Your task to perform on an android device: Add "beats solo 3" to the cart on newegg Image 0: 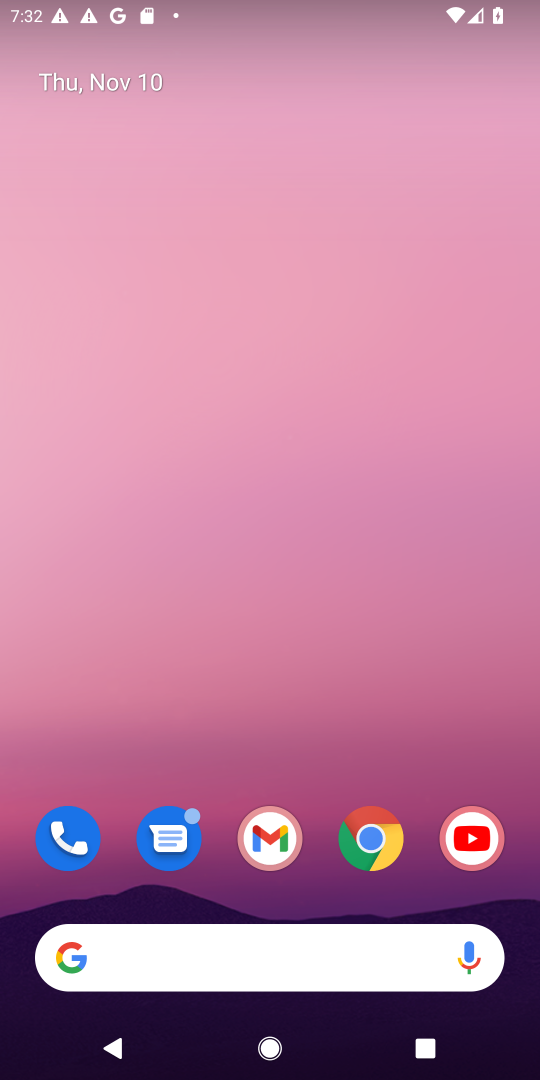
Step 0: drag from (313, 843) to (328, 5)
Your task to perform on an android device: Add "beats solo 3" to the cart on newegg Image 1: 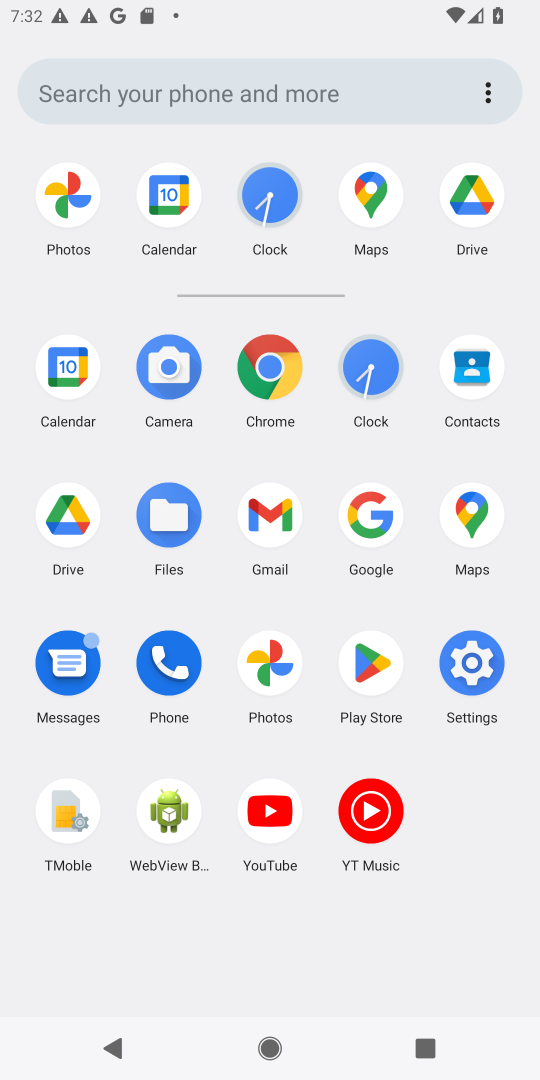
Step 1: click (271, 369)
Your task to perform on an android device: Add "beats solo 3" to the cart on newegg Image 2: 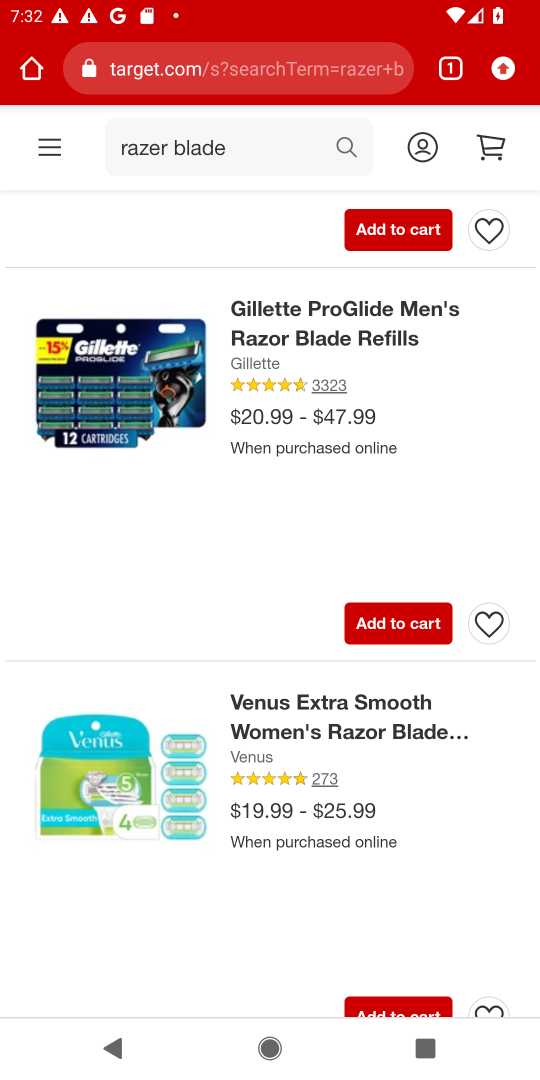
Step 2: click (240, 70)
Your task to perform on an android device: Add "beats solo 3" to the cart on newegg Image 3: 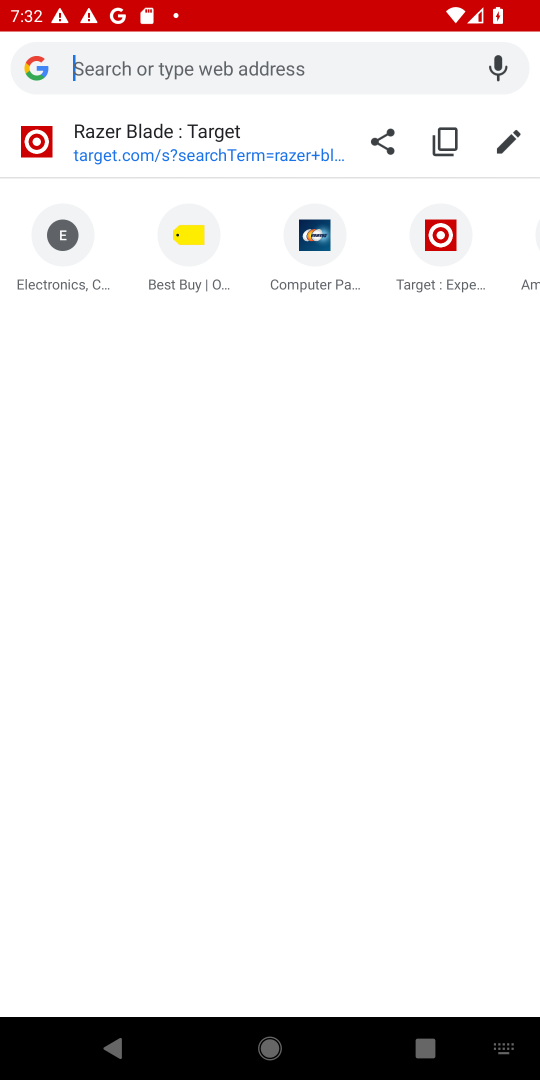
Step 3: type "newegg.com"
Your task to perform on an android device: Add "beats solo 3" to the cart on newegg Image 4: 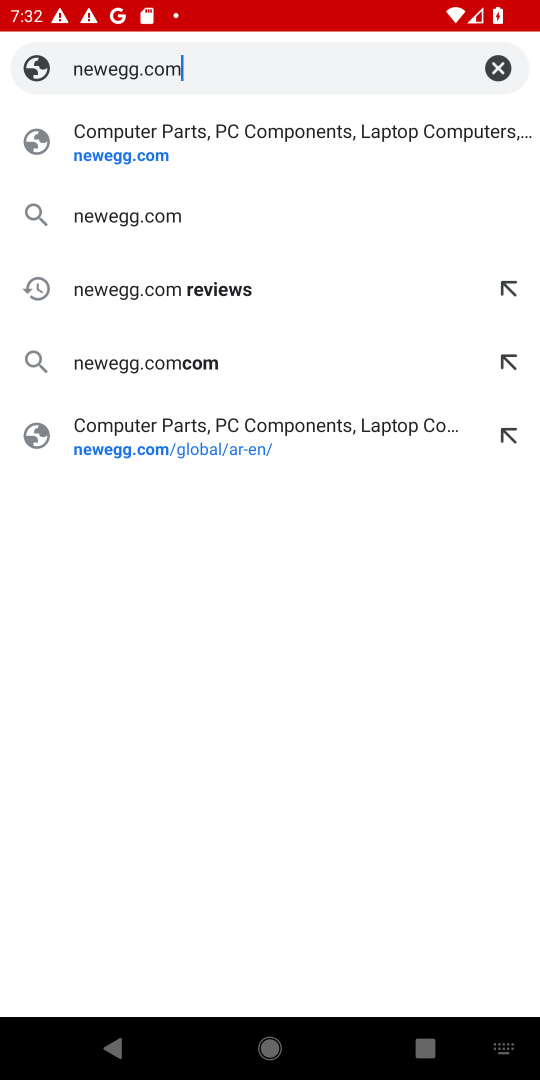
Step 4: press enter
Your task to perform on an android device: Add "beats solo 3" to the cart on newegg Image 5: 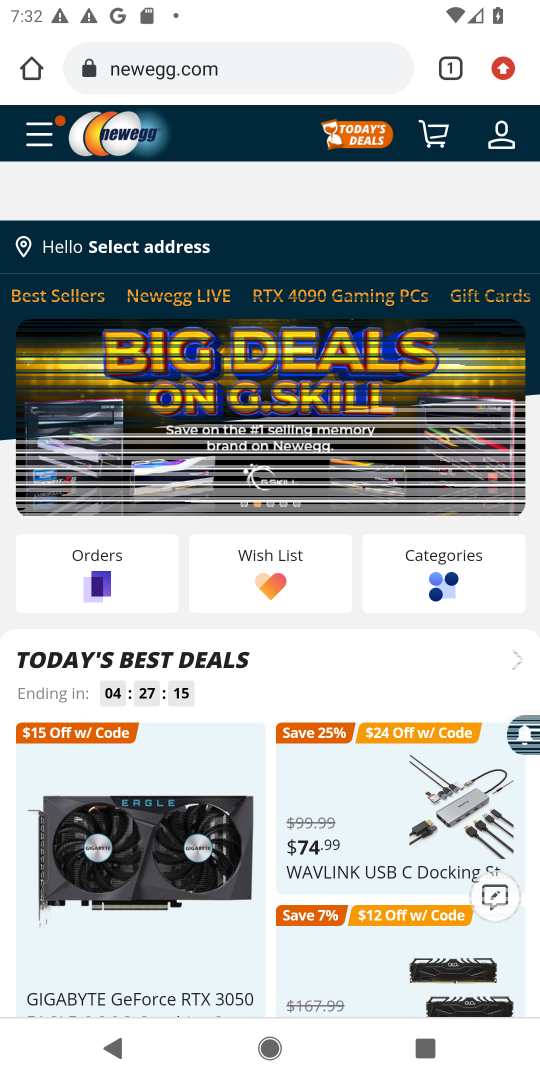
Step 5: click (361, 200)
Your task to perform on an android device: Add "beats solo 3" to the cart on newegg Image 6: 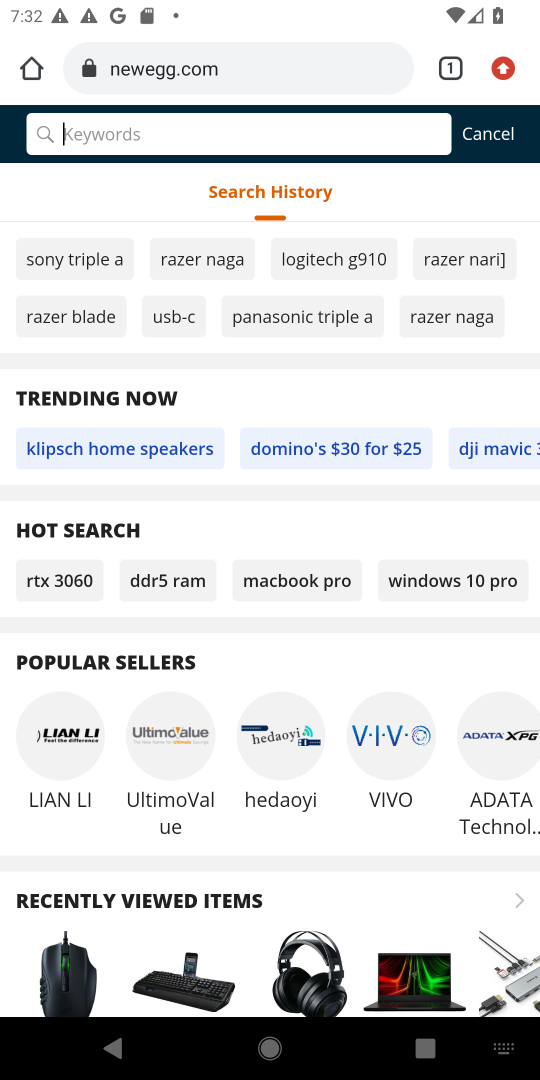
Step 6: type "beats solo 3"
Your task to perform on an android device: Add "beats solo 3" to the cart on newegg Image 7: 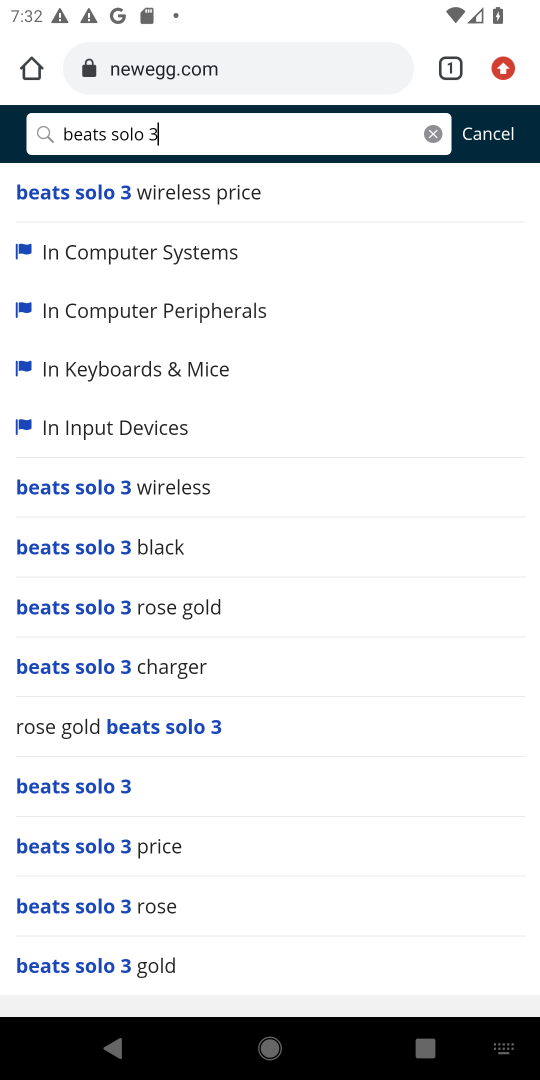
Step 7: press enter
Your task to perform on an android device: Add "beats solo 3" to the cart on newegg Image 8: 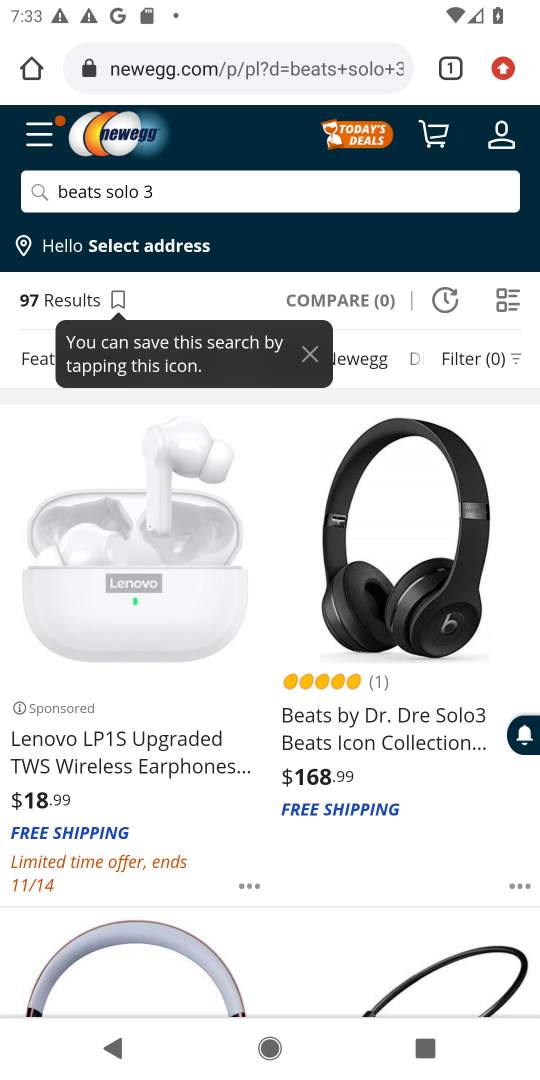
Step 8: click (372, 722)
Your task to perform on an android device: Add "beats solo 3" to the cart on newegg Image 9: 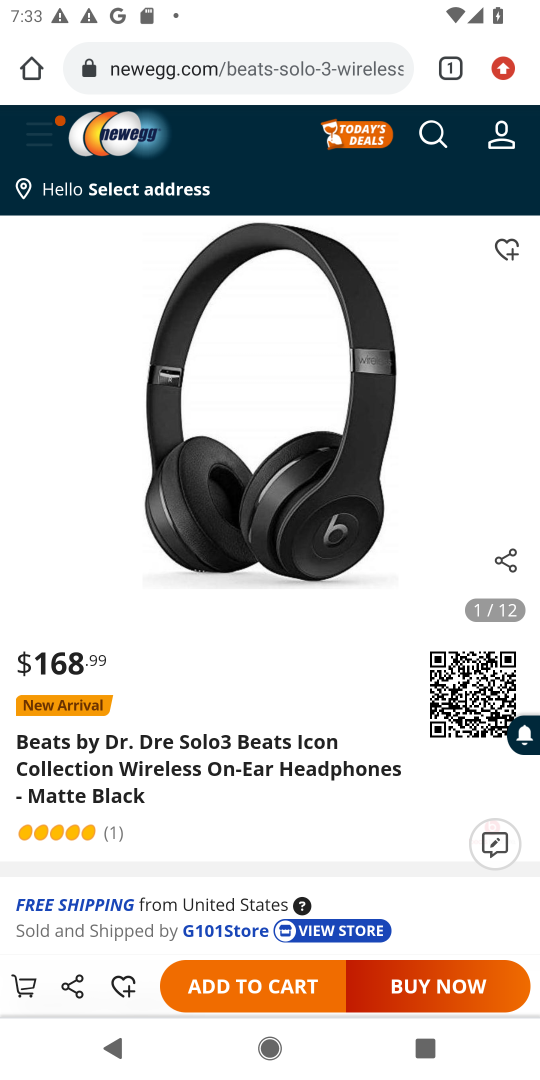
Step 9: click (293, 986)
Your task to perform on an android device: Add "beats solo 3" to the cart on newegg Image 10: 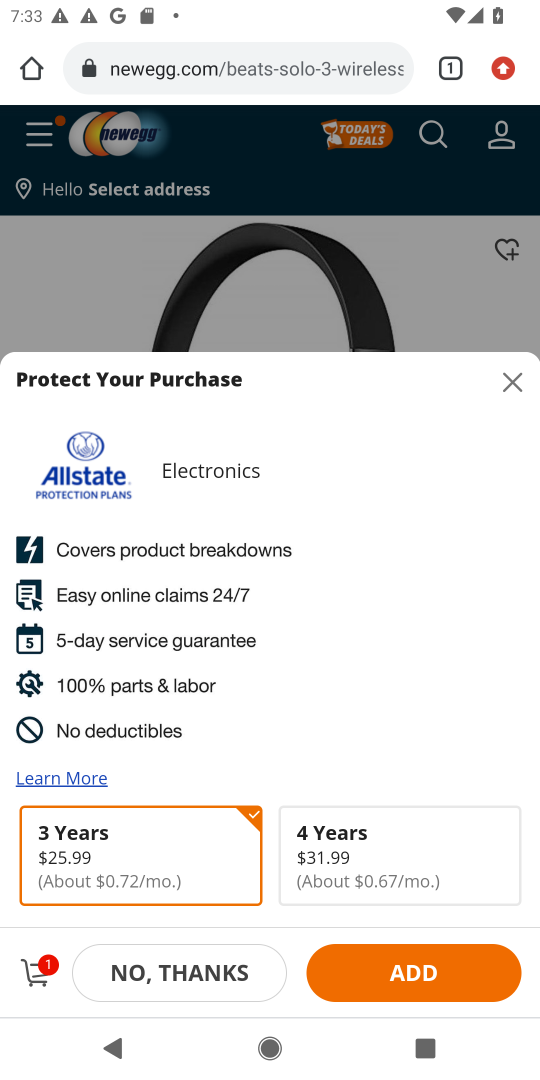
Step 10: task complete